Your task to perform on an android device: Open display settings Image 0: 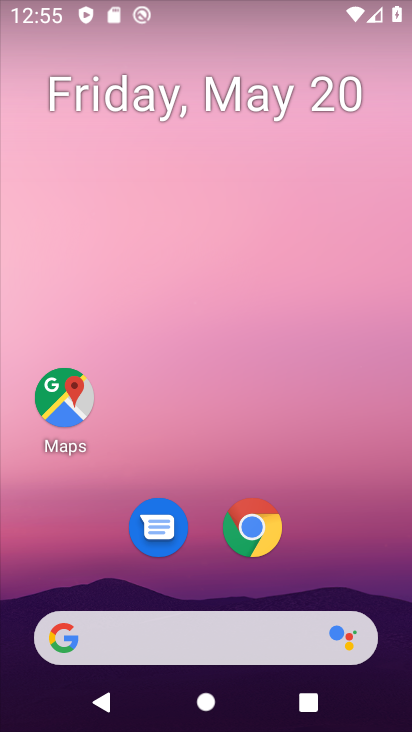
Step 0: drag from (150, 637) to (310, 165)
Your task to perform on an android device: Open display settings Image 1: 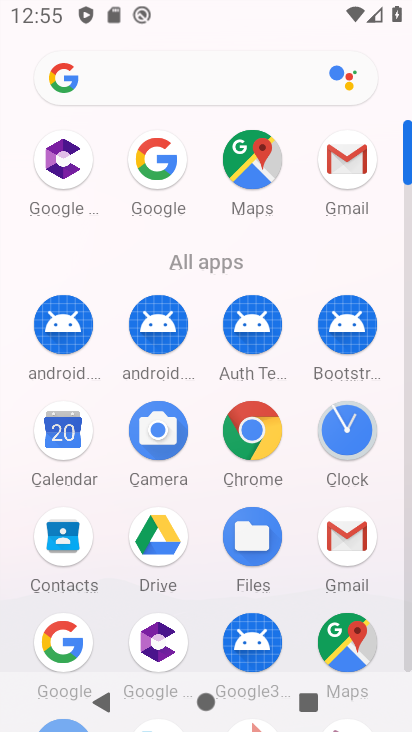
Step 1: drag from (227, 575) to (350, 156)
Your task to perform on an android device: Open display settings Image 2: 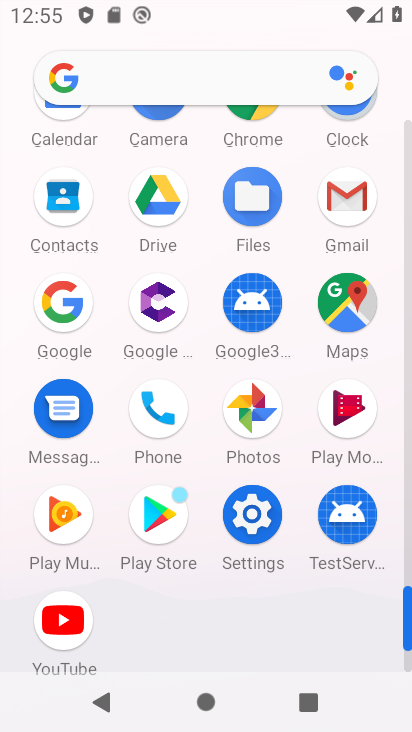
Step 2: click (263, 518)
Your task to perform on an android device: Open display settings Image 3: 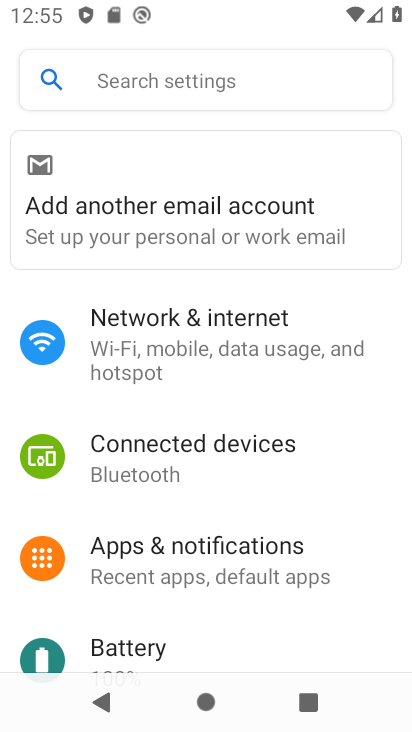
Step 3: drag from (218, 588) to (376, 161)
Your task to perform on an android device: Open display settings Image 4: 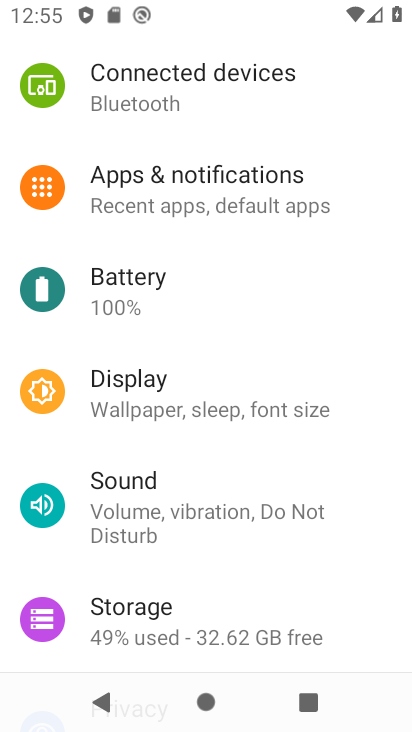
Step 4: click (118, 387)
Your task to perform on an android device: Open display settings Image 5: 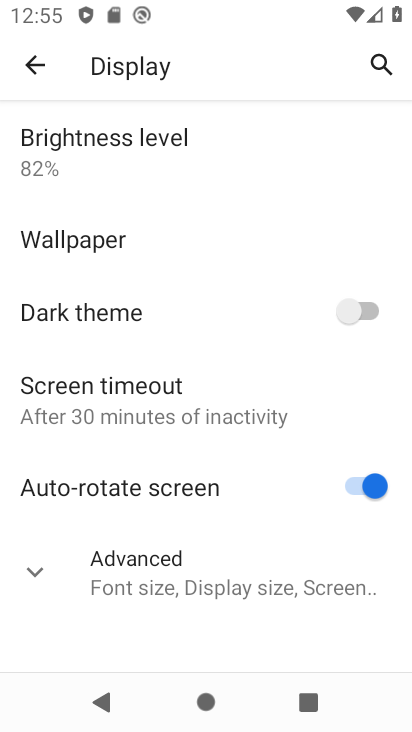
Step 5: task complete